Your task to perform on an android device: Open Google Chrome Image 0: 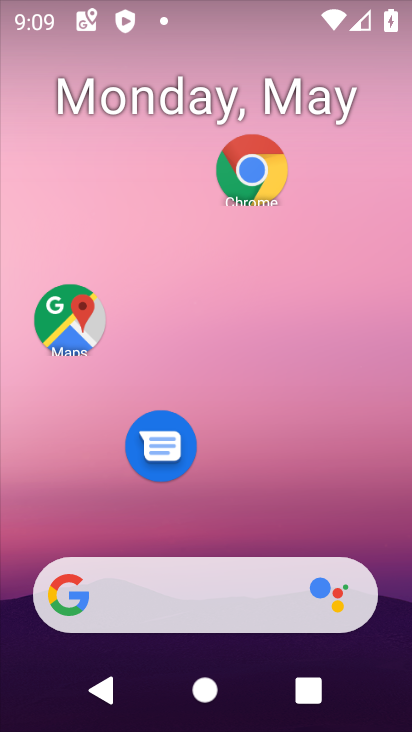
Step 0: press home button
Your task to perform on an android device: Open Google Chrome Image 1: 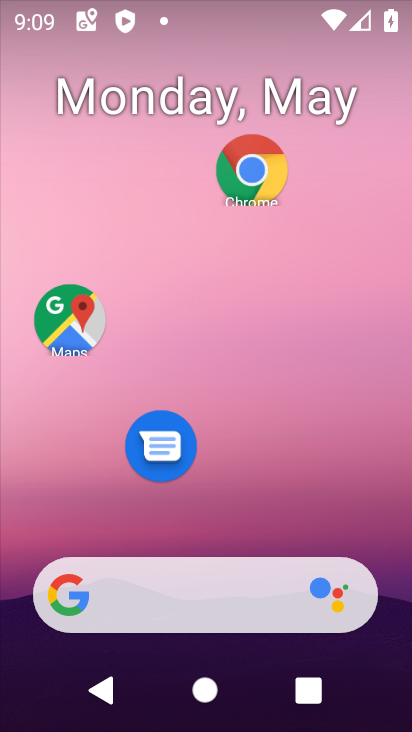
Step 1: click (246, 164)
Your task to perform on an android device: Open Google Chrome Image 2: 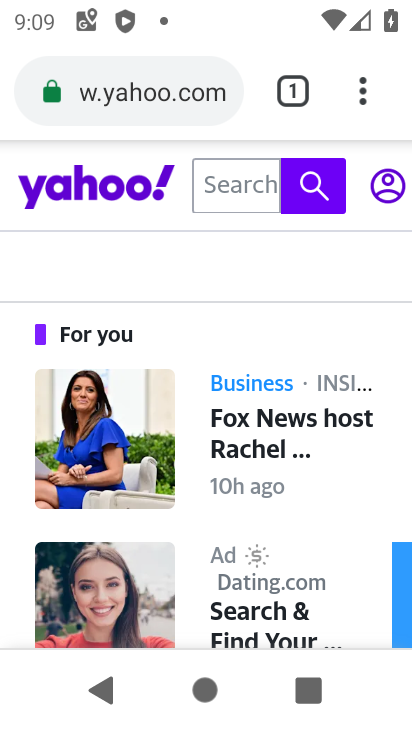
Step 2: click (294, 78)
Your task to perform on an android device: Open Google Chrome Image 3: 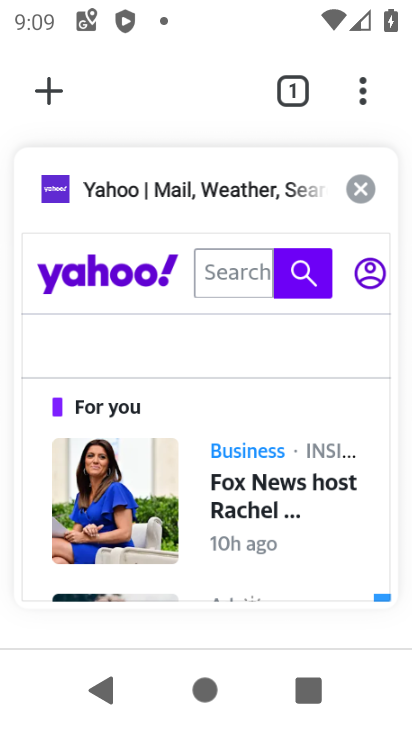
Step 3: click (362, 183)
Your task to perform on an android device: Open Google Chrome Image 4: 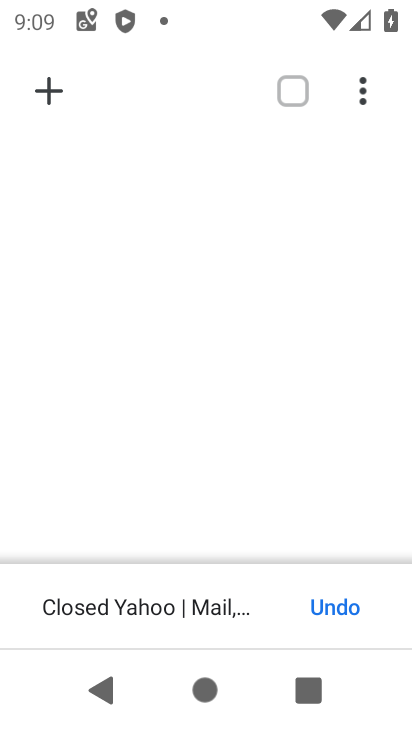
Step 4: click (52, 87)
Your task to perform on an android device: Open Google Chrome Image 5: 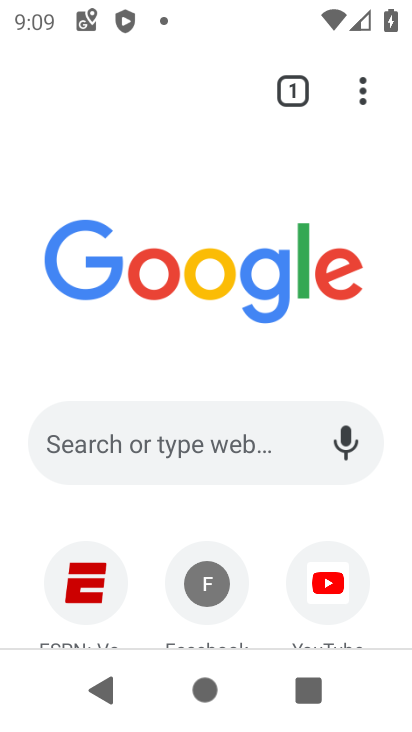
Step 5: task complete